Your task to perform on an android device: Search for sushi restaurants on Maps Image 0: 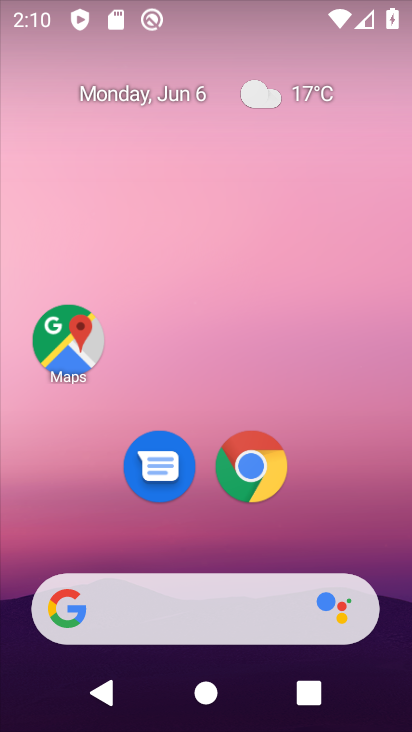
Step 0: drag from (192, 540) to (249, 110)
Your task to perform on an android device: Search for sushi restaurants on Maps Image 1: 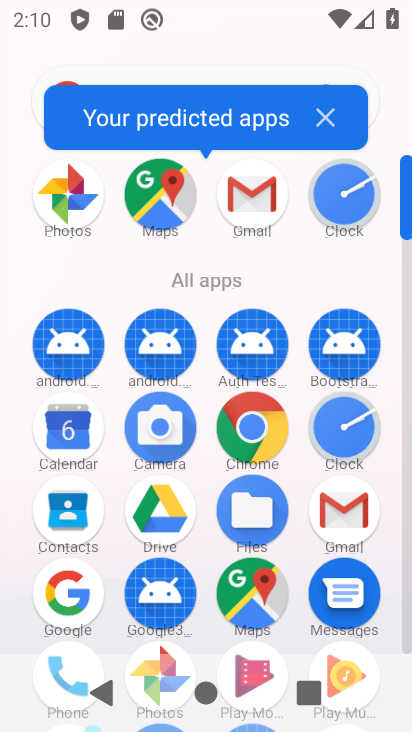
Step 1: click (172, 211)
Your task to perform on an android device: Search for sushi restaurants on Maps Image 2: 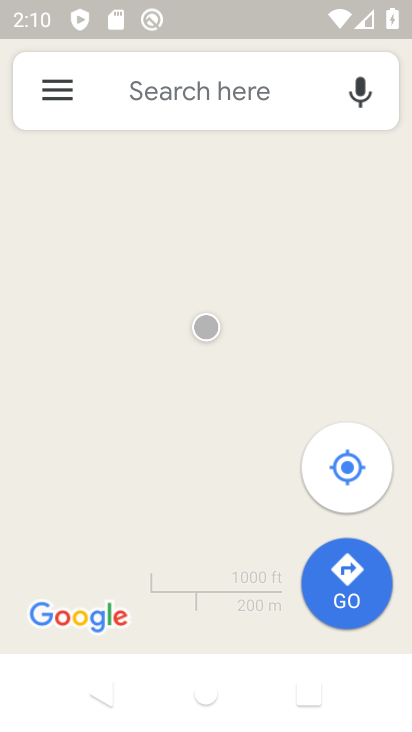
Step 2: click (208, 97)
Your task to perform on an android device: Search for sushi restaurants on Maps Image 3: 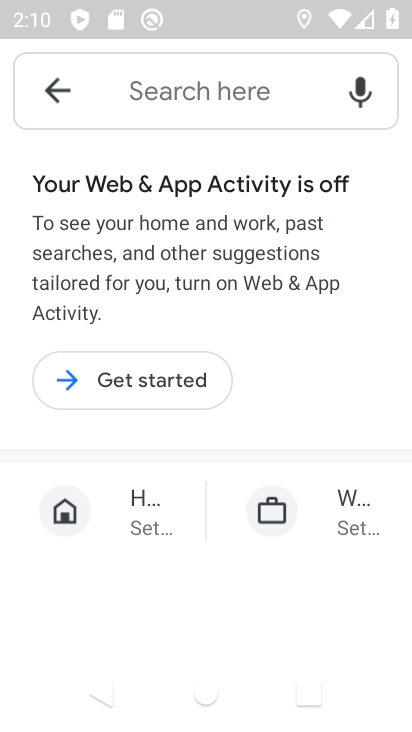
Step 3: click (52, 96)
Your task to perform on an android device: Search for sushi restaurants on Maps Image 4: 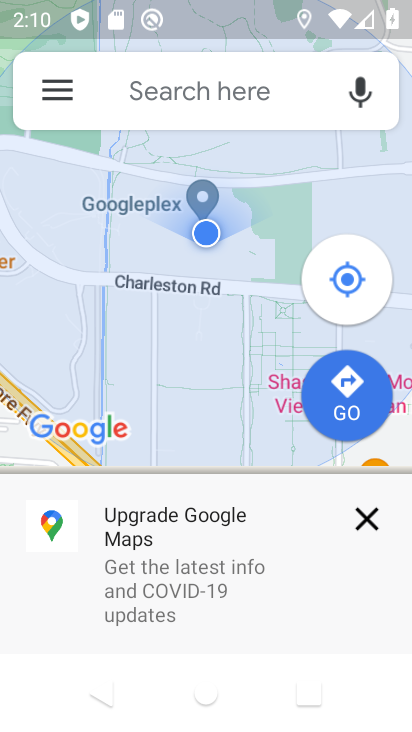
Step 4: type "sushi restaurants"
Your task to perform on an android device: Search for sushi restaurants on Maps Image 5: 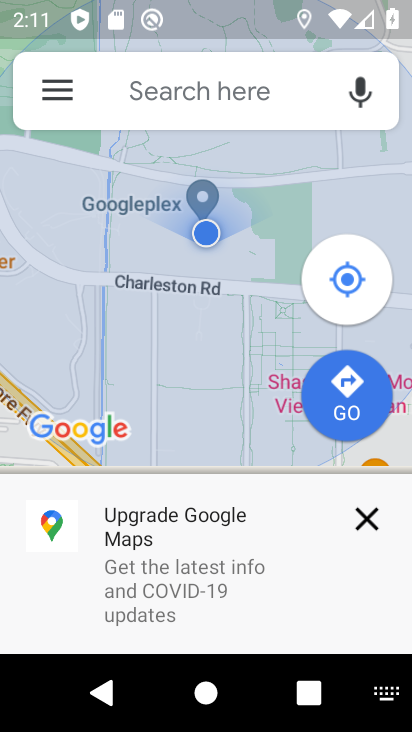
Step 5: click (367, 523)
Your task to perform on an android device: Search for sushi restaurants on Maps Image 6: 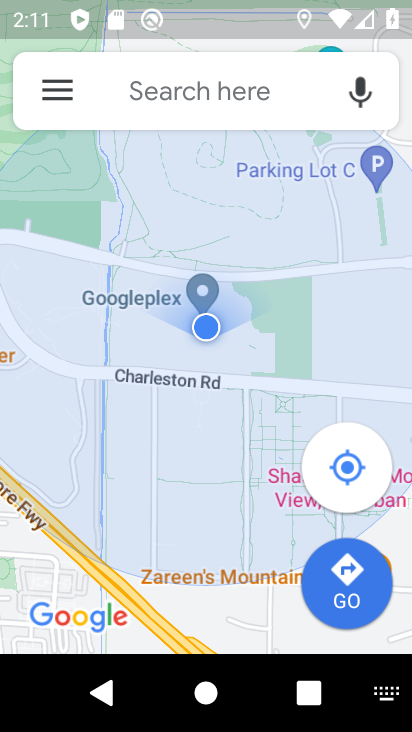
Step 6: click (184, 76)
Your task to perform on an android device: Search for sushi restaurants on Maps Image 7: 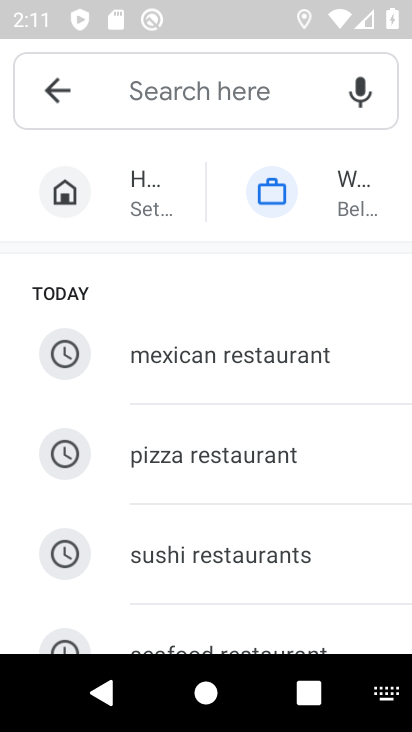
Step 7: click (216, 559)
Your task to perform on an android device: Search for sushi restaurants on Maps Image 8: 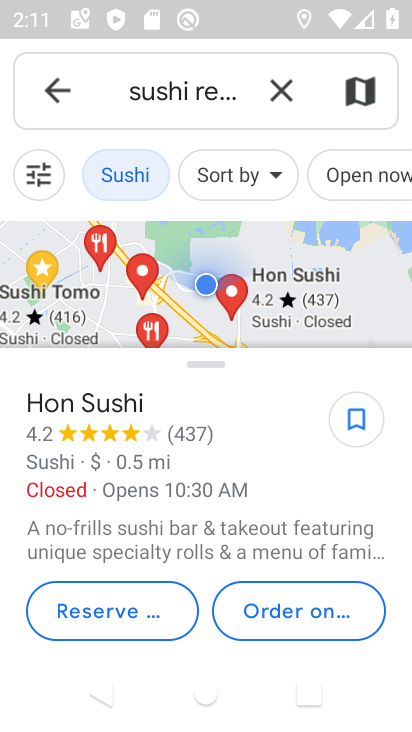
Step 8: task complete